Your task to perform on an android device: Open Google Chrome and open the bookmarks view Image 0: 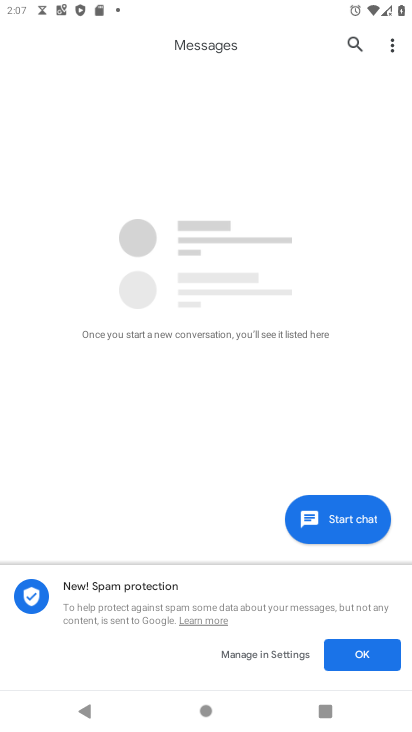
Step 0: press home button
Your task to perform on an android device: Open Google Chrome and open the bookmarks view Image 1: 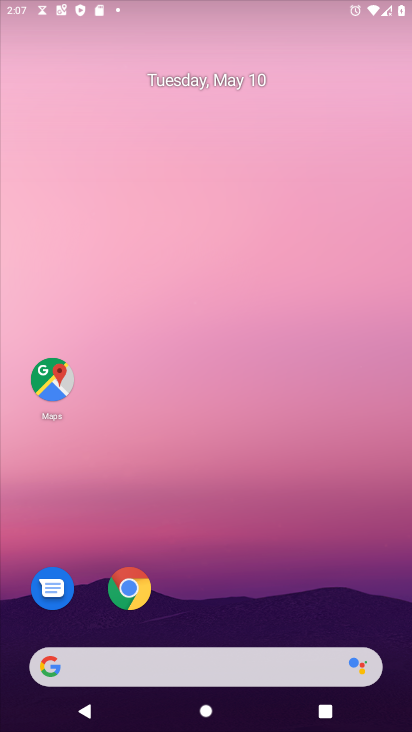
Step 1: drag from (217, 576) to (234, 277)
Your task to perform on an android device: Open Google Chrome and open the bookmarks view Image 2: 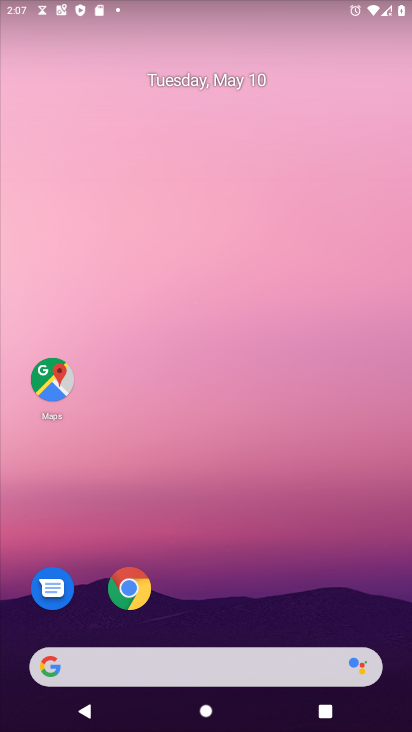
Step 2: drag from (210, 627) to (273, 270)
Your task to perform on an android device: Open Google Chrome and open the bookmarks view Image 3: 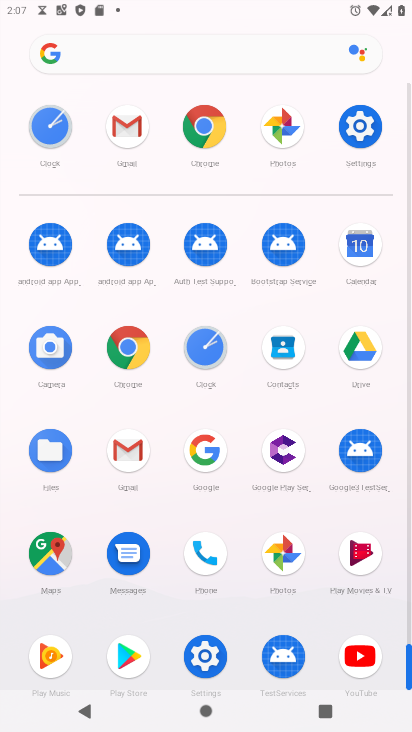
Step 3: click (189, 121)
Your task to perform on an android device: Open Google Chrome and open the bookmarks view Image 4: 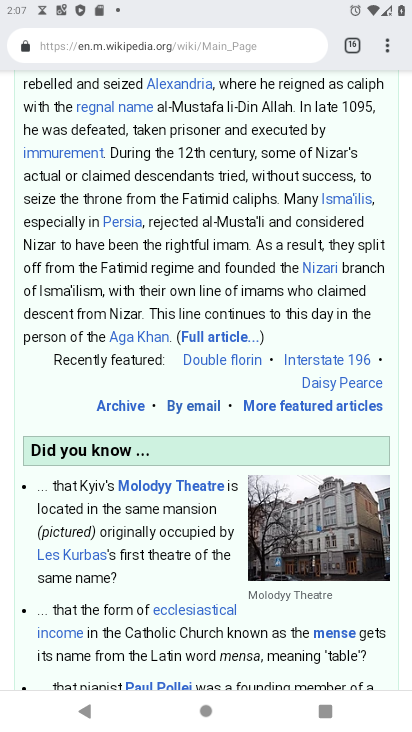
Step 4: click (381, 57)
Your task to perform on an android device: Open Google Chrome and open the bookmarks view Image 5: 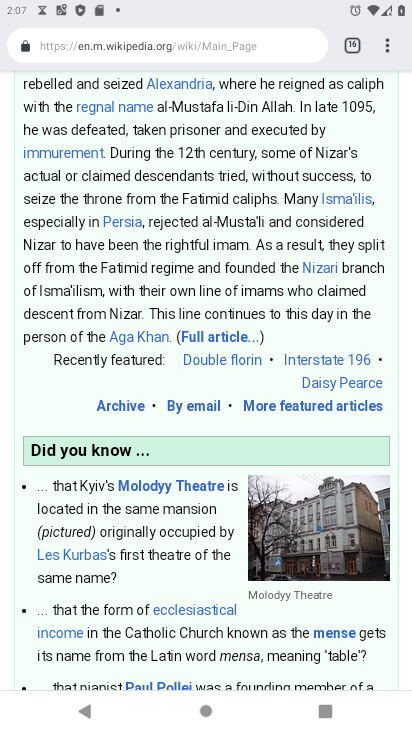
Step 5: click (376, 40)
Your task to perform on an android device: Open Google Chrome and open the bookmarks view Image 6: 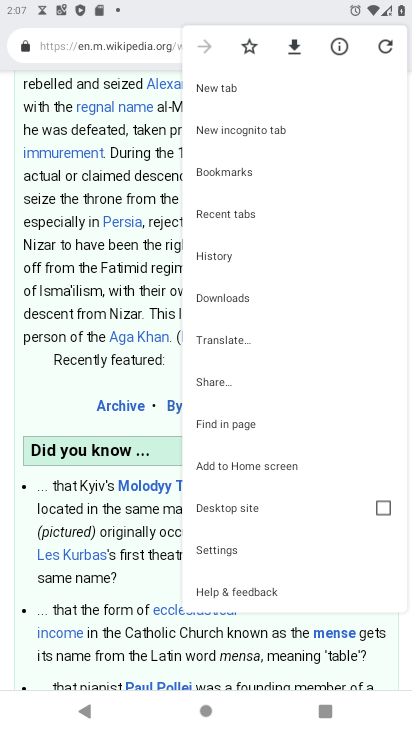
Step 6: click (245, 176)
Your task to perform on an android device: Open Google Chrome and open the bookmarks view Image 7: 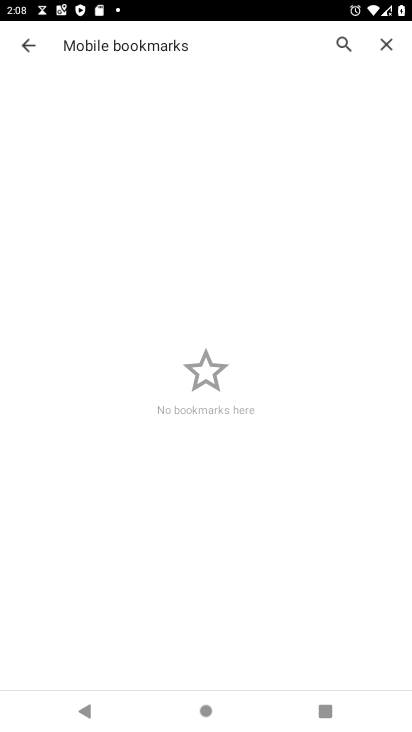
Step 7: task complete